Your task to perform on an android device: turn on data saver in the chrome app Image 0: 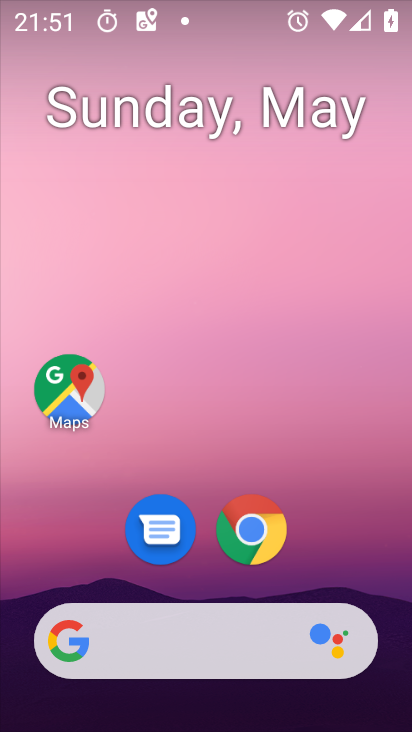
Step 0: click (257, 535)
Your task to perform on an android device: turn on data saver in the chrome app Image 1: 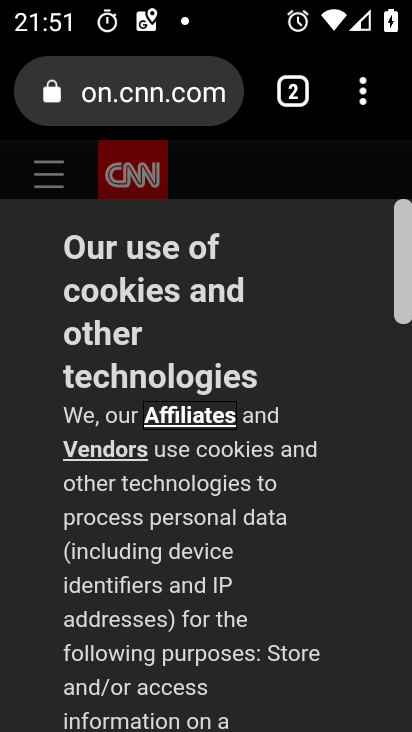
Step 1: click (366, 93)
Your task to perform on an android device: turn on data saver in the chrome app Image 2: 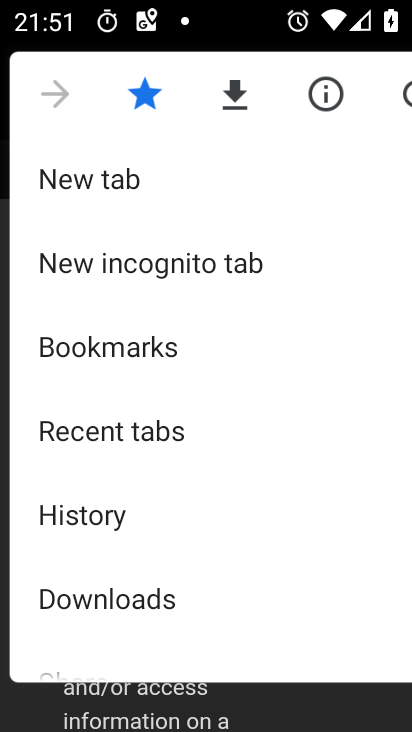
Step 2: drag from (228, 599) to (206, 167)
Your task to perform on an android device: turn on data saver in the chrome app Image 3: 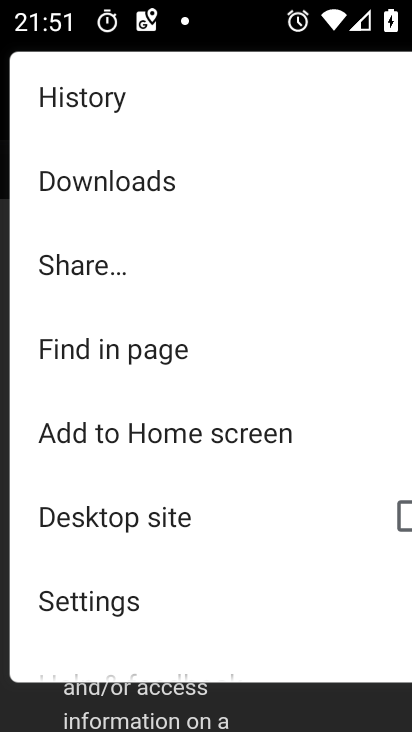
Step 3: click (99, 608)
Your task to perform on an android device: turn on data saver in the chrome app Image 4: 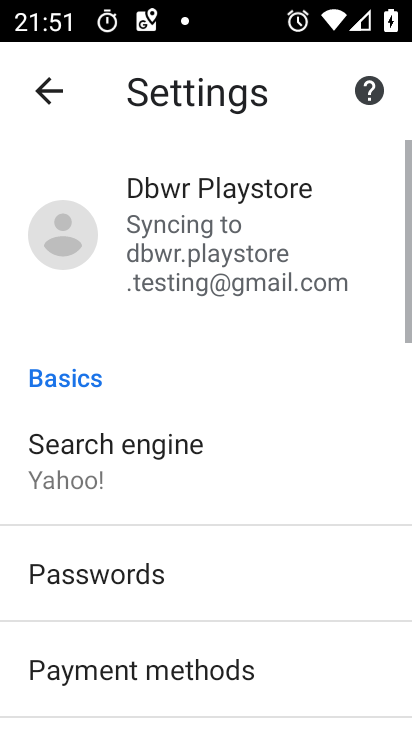
Step 4: drag from (201, 586) to (207, 147)
Your task to perform on an android device: turn on data saver in the chrome app Image 5: 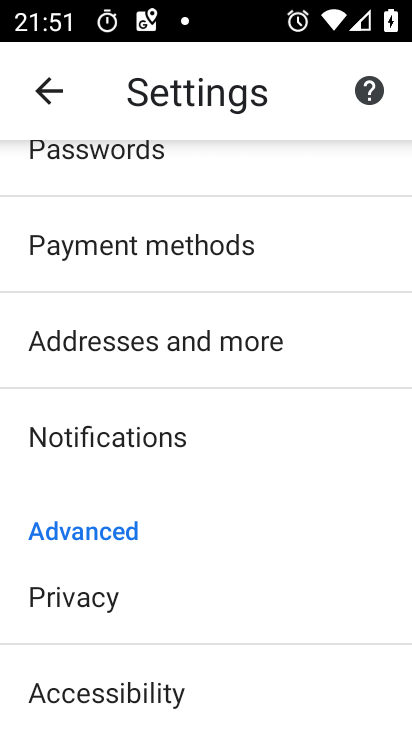
Step 5: drag from (182, 586) to (193, 198)
Your task to perform on an android device: turn on data saver in the chrome app Image 6: 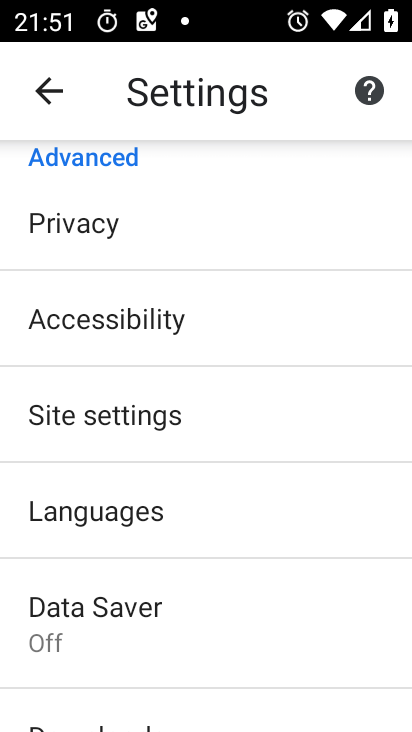
Step 6: click (113, 612)
Your task to perform on an android device: turn on data saver in the chrome app Image 7: 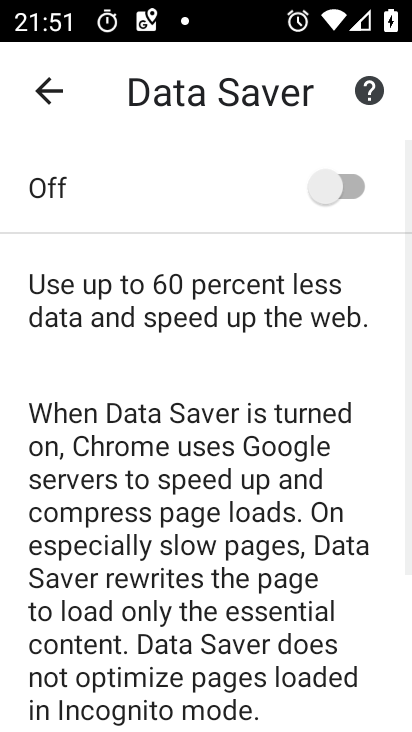
Step 7: click (337, 172)
Your task to perform on an android device: turn on data saver in the chrome app Image 8: 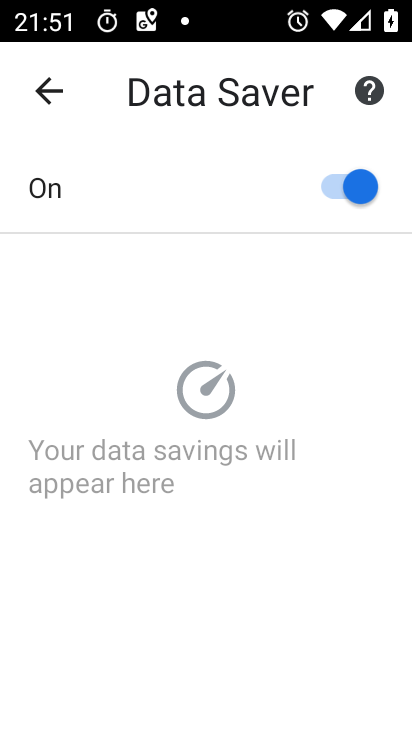
Step 8: task complete